Your task to perform on an android device: Turn on the flashlight Image 0: 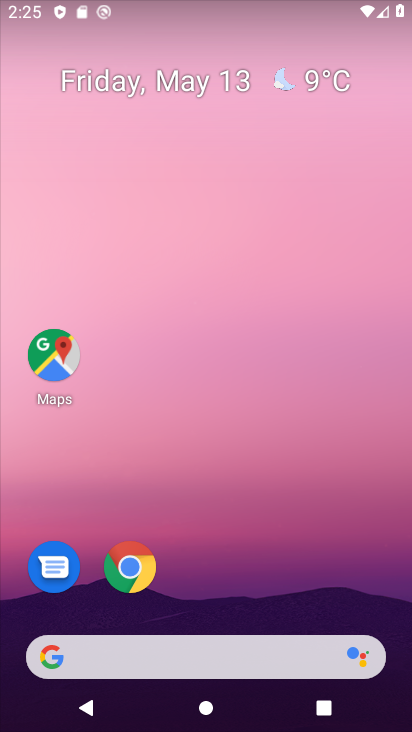
Step 0: drag from (205, 45) to (237, 563)
Your task to perform on an android device: Turn on the flashlight Image 1: 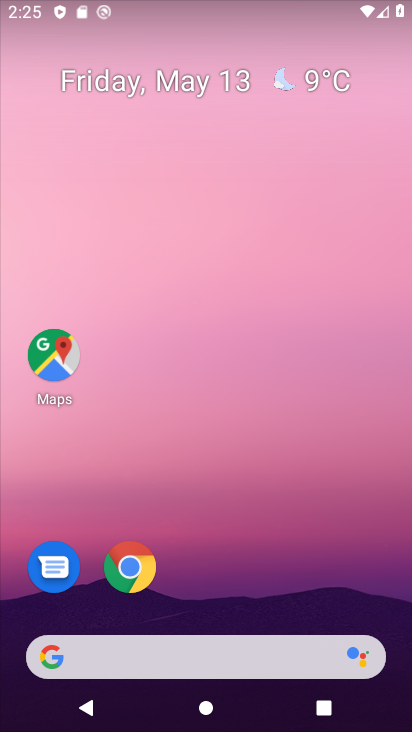
Step 1: task complete